Your task to perform on an android device: Open Chrome and go to settings Image 0: 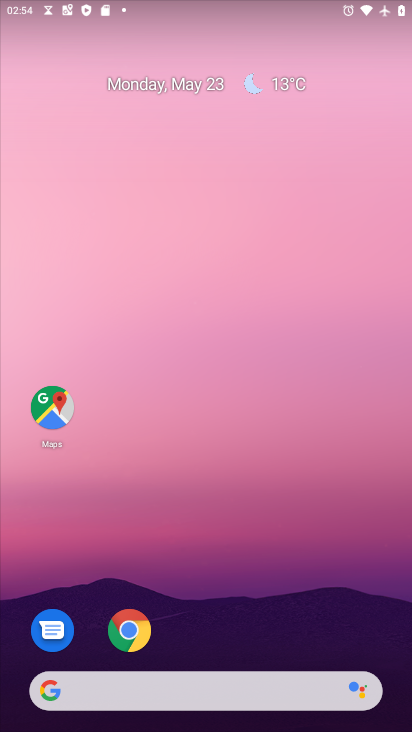
Step 0: click (133, 632)
Your task to perform on an android device: Open Chrome and go to settings Image 1: 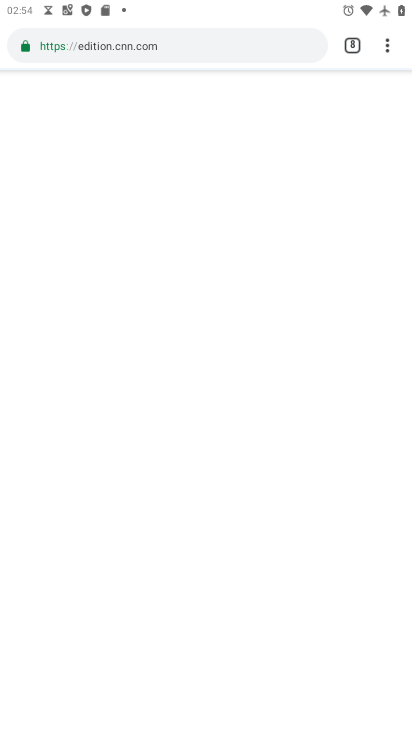
Step 1: click (389, 38)
Your task to perform on an android device: Open Chrome and go to settings Image 2: 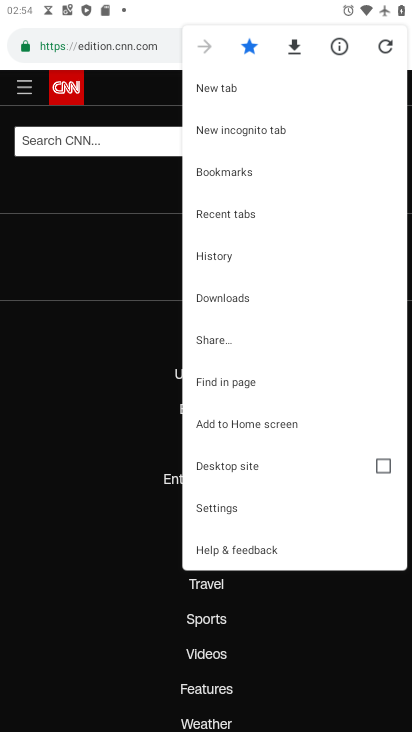
Step 2: click (245, 510)
Your task to perform on an android device: Open Chrome and go to settings Image 3: 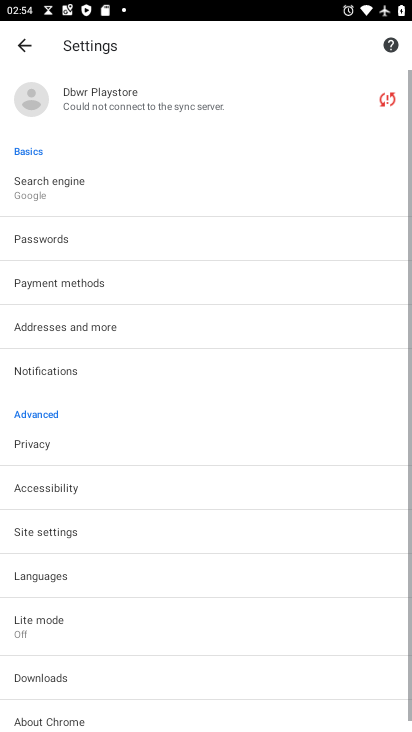
Step 3: task complete